Your task to perform on an android device: toggle priority inbox in the gmail app Image 0: 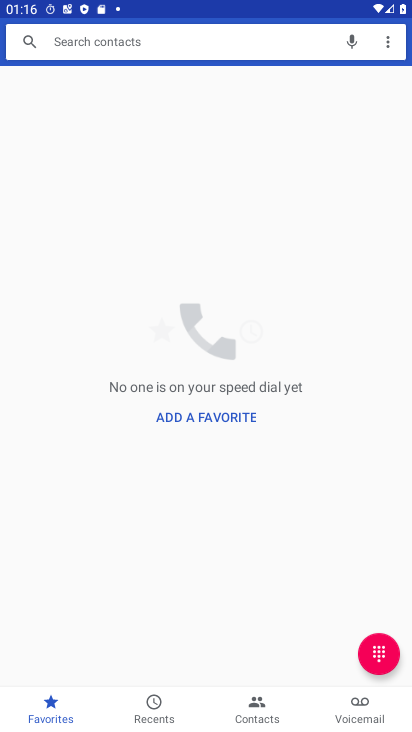
Step 0: press home button
Your task to perform on an android device: toggle priority inbox in the gmail app Image 1: 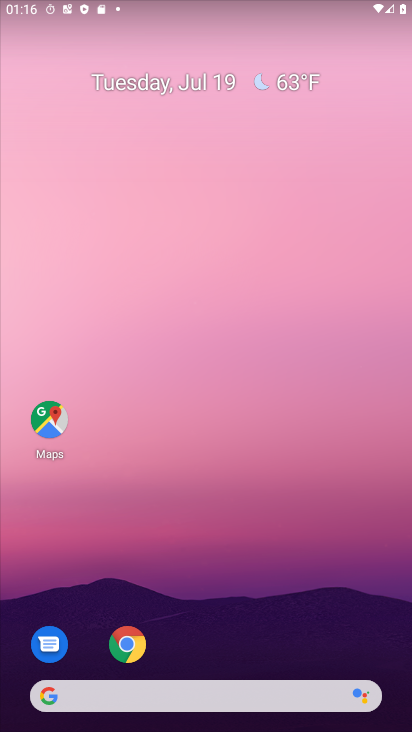
Step 1: drag from (220, 722) to (169, 179)
Your task to perform on an android device: toggle priority inbox in the gmail app Image 2: 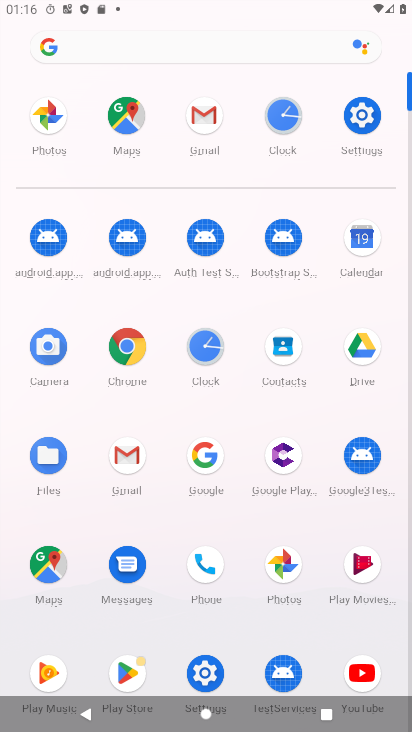
Step 2: click (132, 456)
Your task to perform on an android device: toggle priority inbox in the gmail app Image 3: 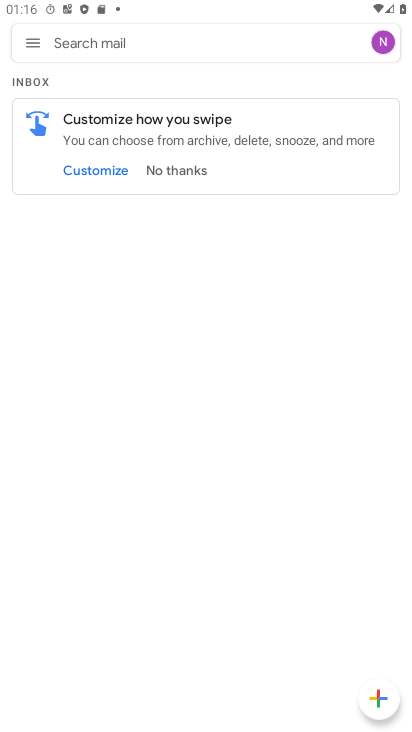
Step 3: click (33, 47)
Your task to perform on an android device: toggle priority inbox in the gmail app Image 4: 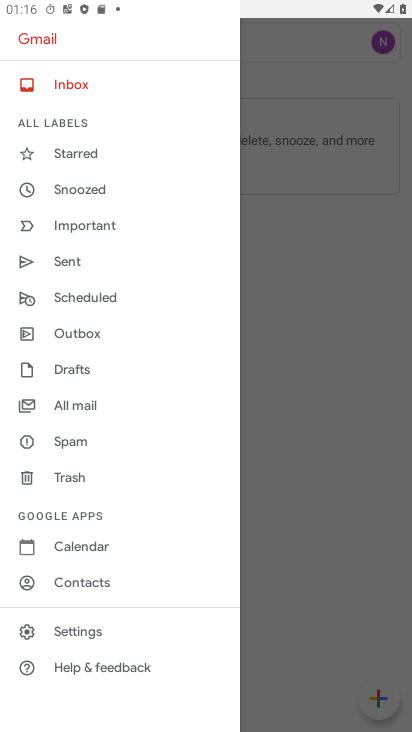
Step 4: click (59, 633)
Your task to perform on an android device: toggle priority inbox in the gmail app Image 5: 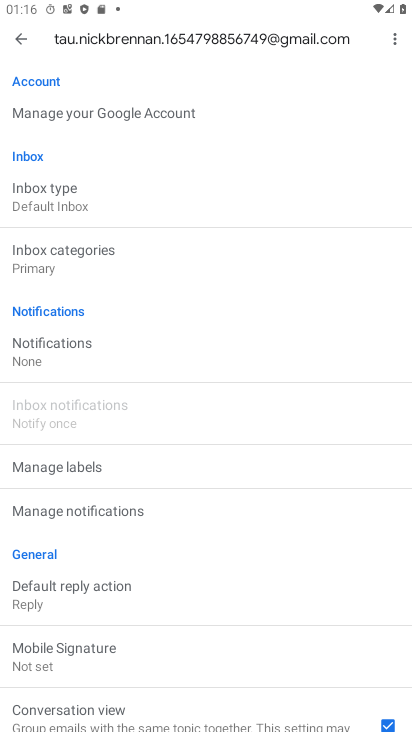
Step 5: click (47, 200)
Your task to perform on an android device: toggle priority inbox in the gmail app Image 6: 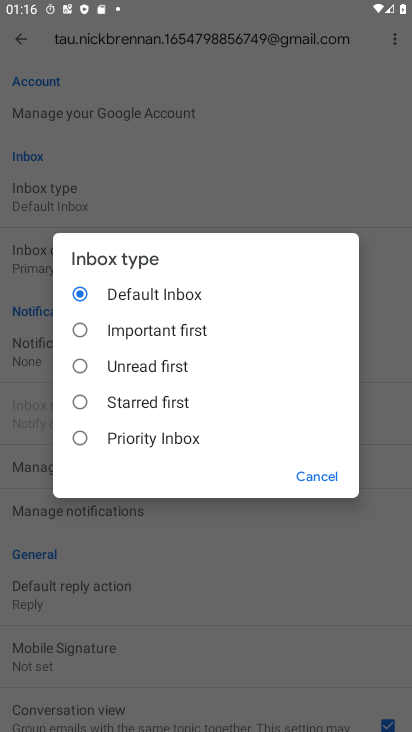
Step 6: click (75, 438)
Your task to perform on an android device: toggle priority inbox in the gmail app Image 7: 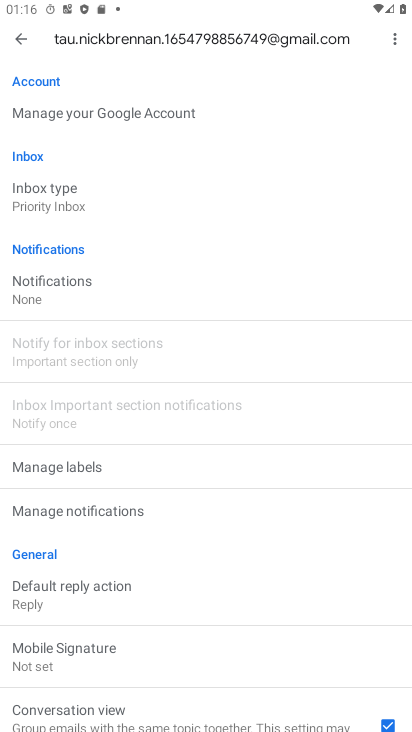
Step 7: task complete